Your task to perform on an android device: Do I have any events tomorrow? Image 0: 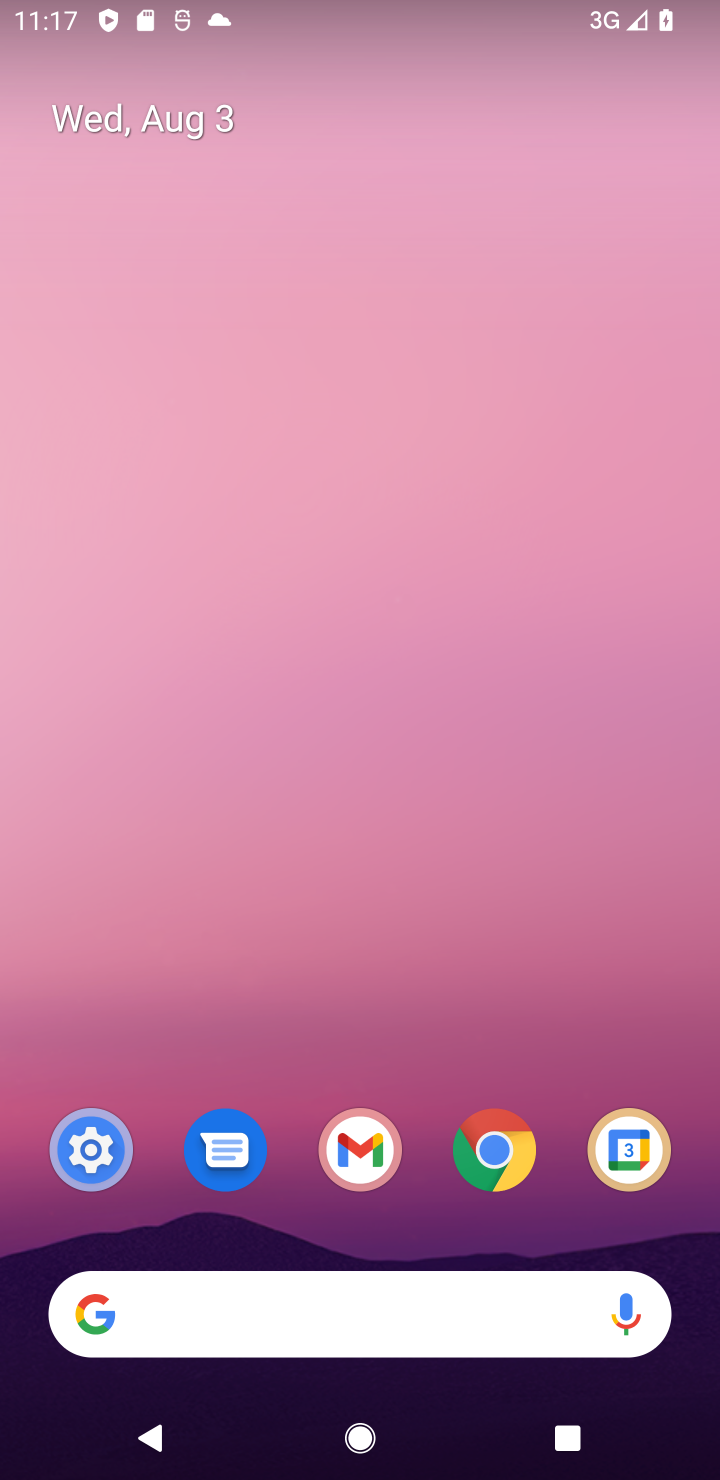
Step 0: press home button
Your task to perform on an android device: Do I have any events tomorrow? Image 1: 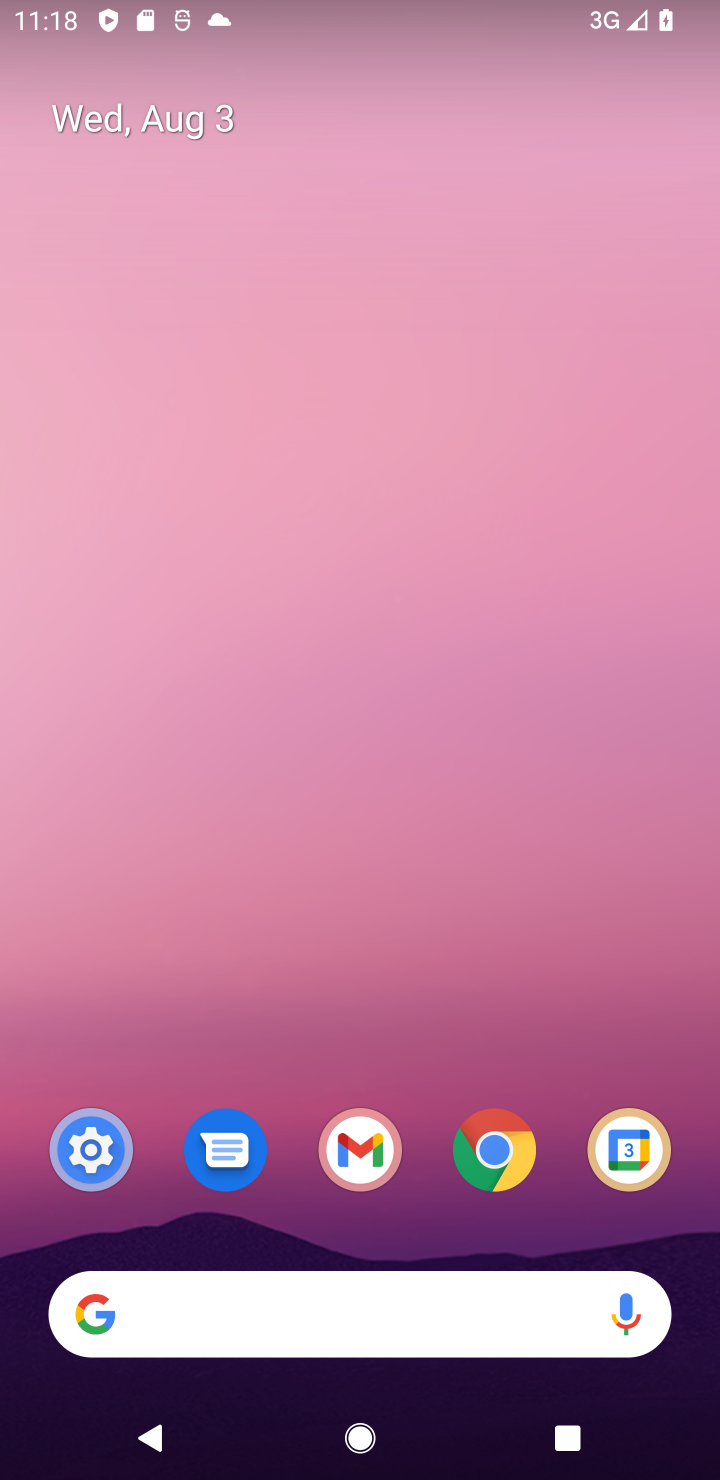
Step 1: drag from (543, 972) to (556, 243)
Your task to perform on an android device: Do I have any events tomorrow? Image 2: 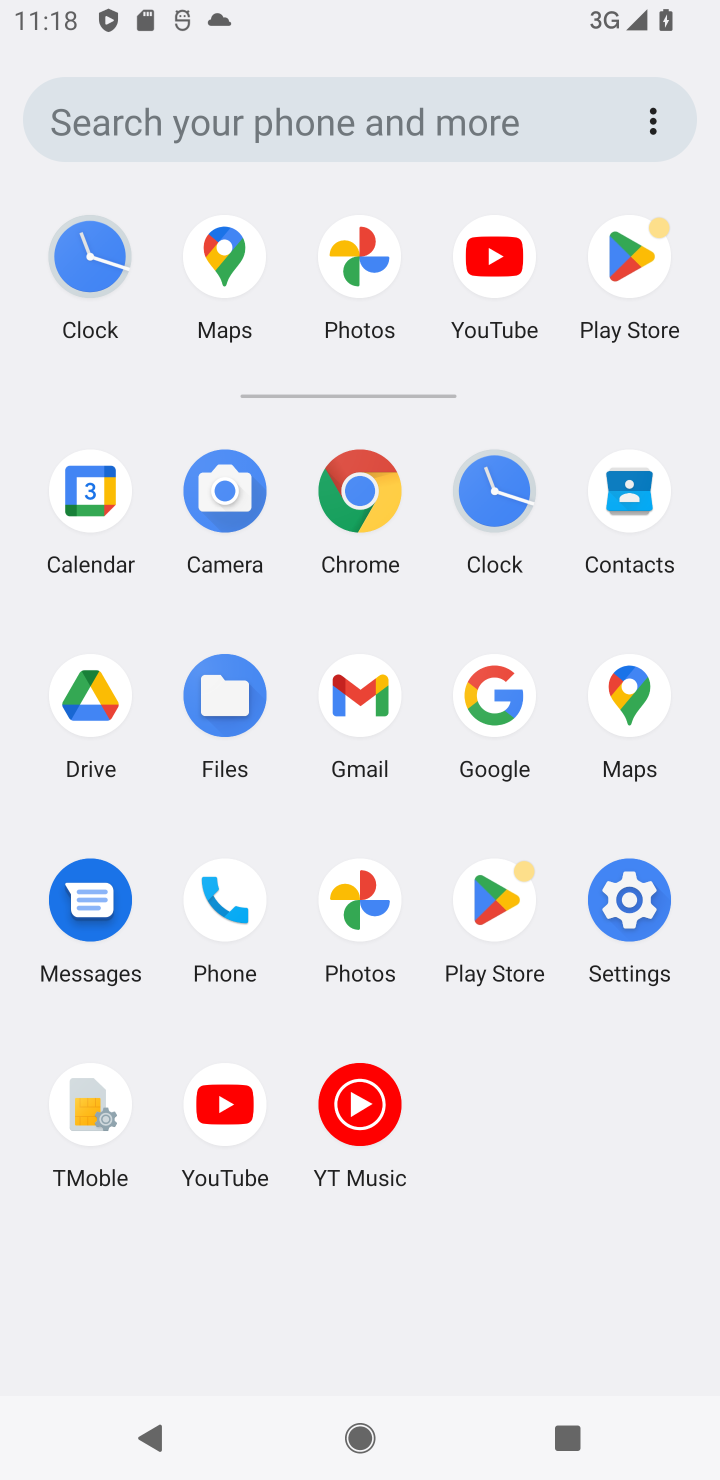
Step 2: click (105, 520)
Your task to perform on an android device: Do I have any events tomorrow? Image 3: 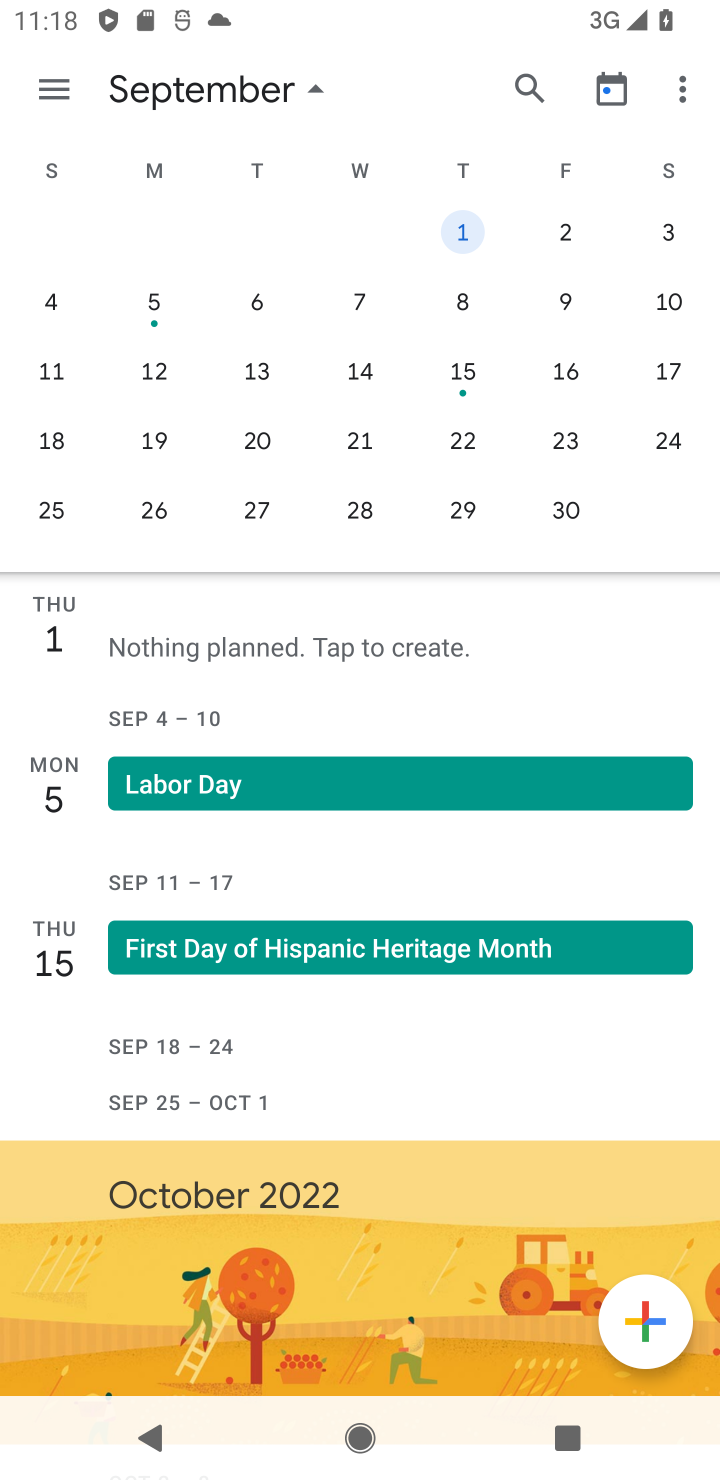
Step 3: click (354, 811)
Your task to perform on an android device: Do I have any events tomorrow? Image 4: 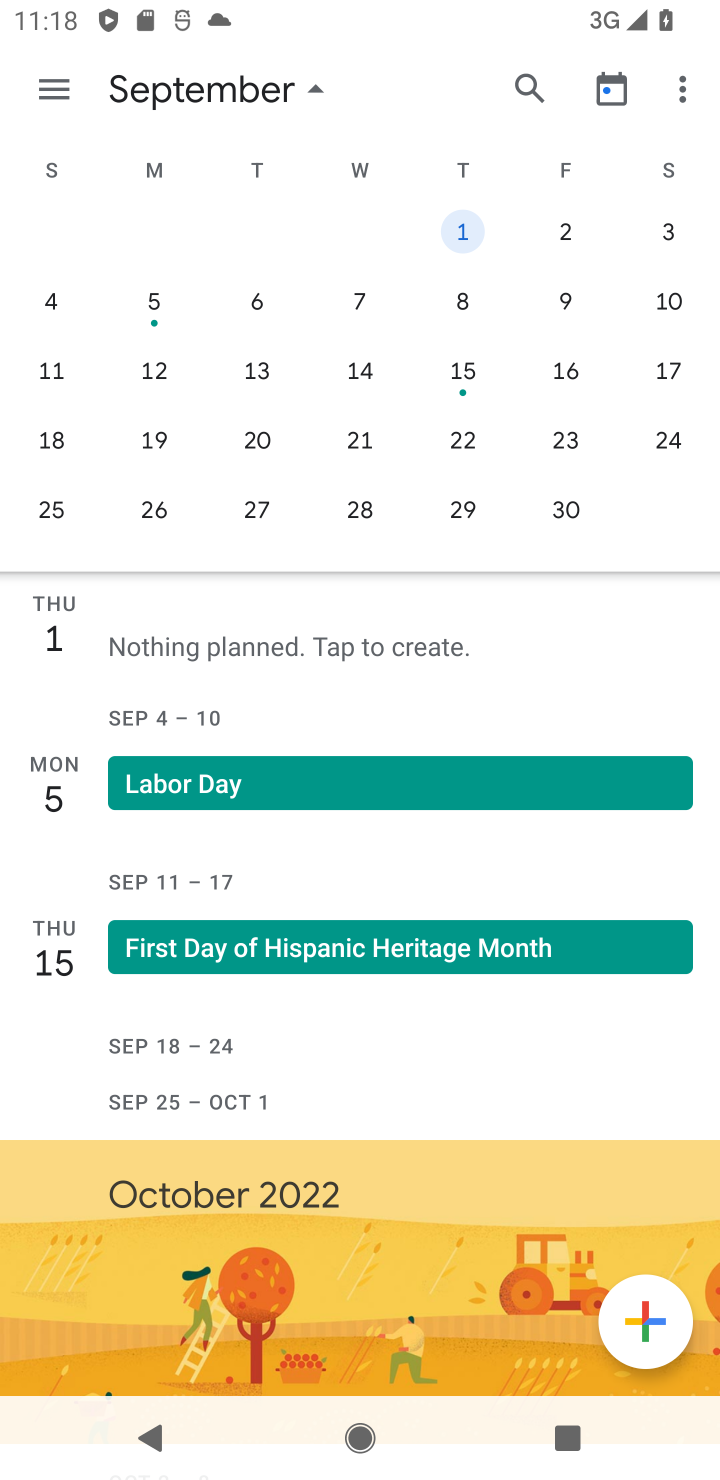
Step 4: drag from (354, 608) to (375, 96)
Your task to perform on an android device: Do I have any events tomorrow? Image 5: 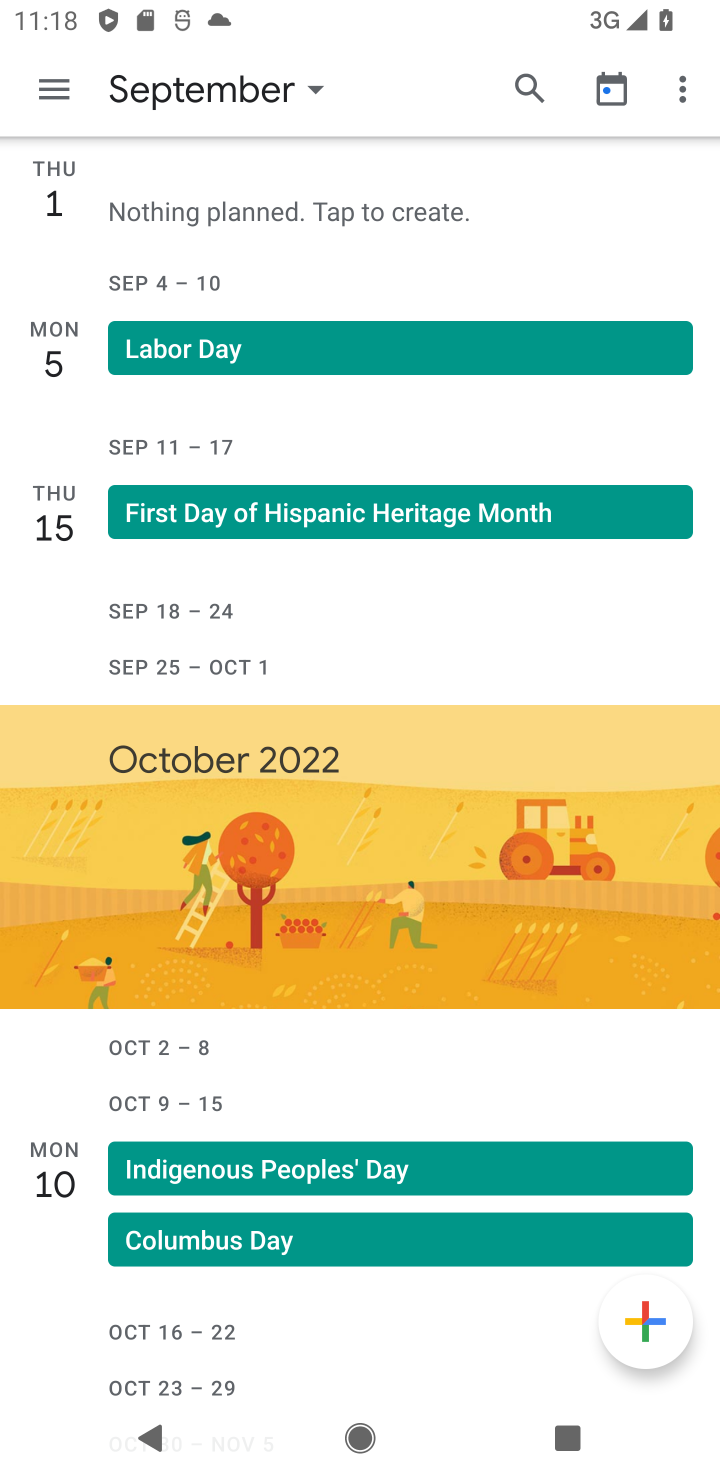
Step 5: drag from (371, 238) to (410, 660)
Your task to perform on an android device: Do I have any events tomorrow? Image 6: 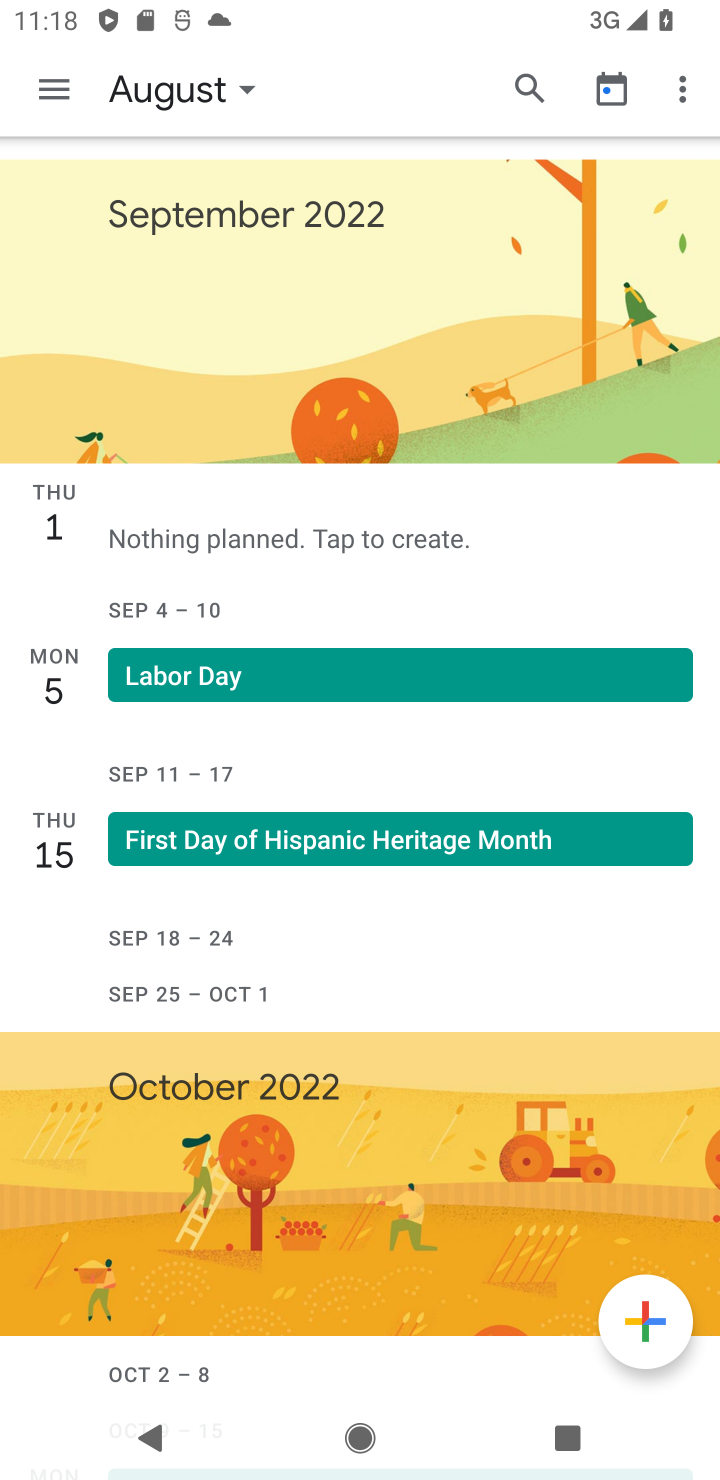
Step 6: drag from (403, 280) to (408, 644)
Your task to perform on an android device: Do I have any events tomorrow? Image 7: 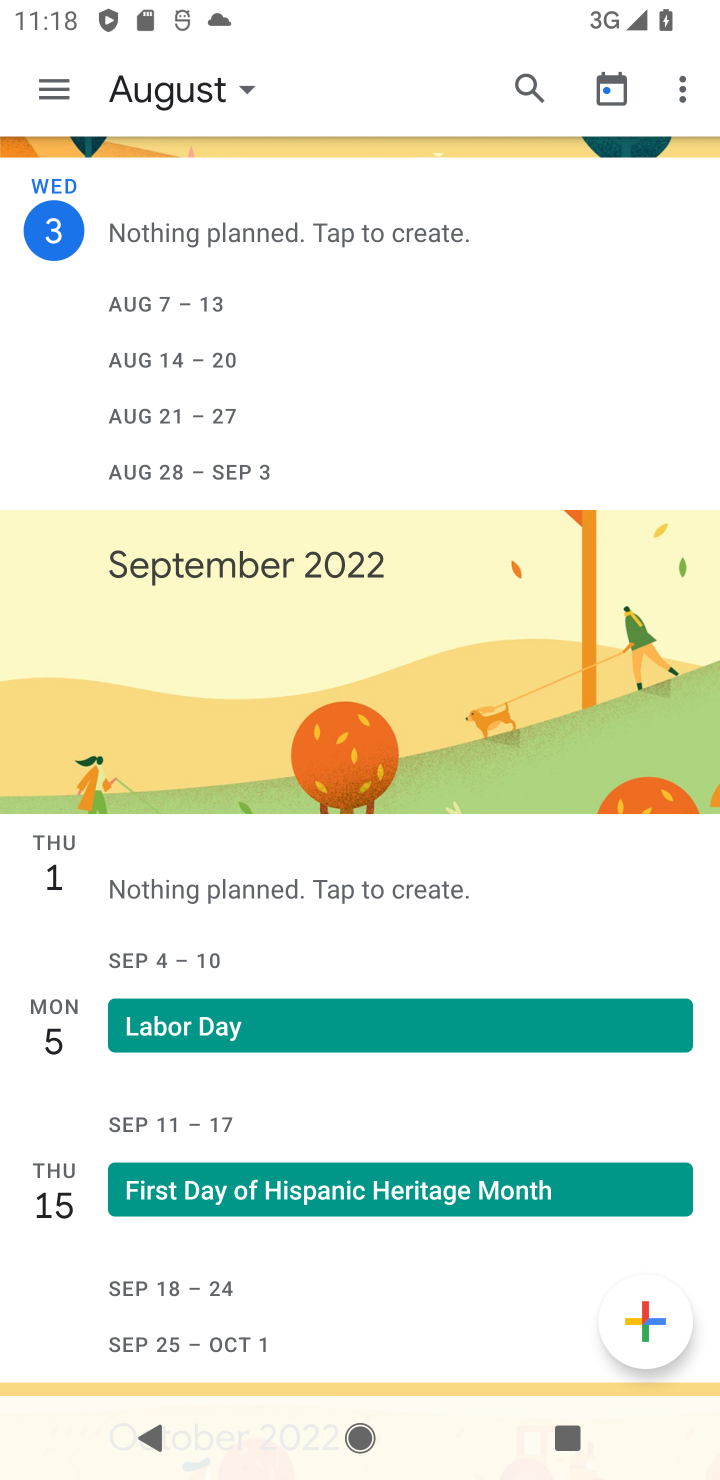
Step 7: drag from (408, 270) to (412, 599)
Your task to perform on an android device: Do I have any events tomorrow? Image 8: 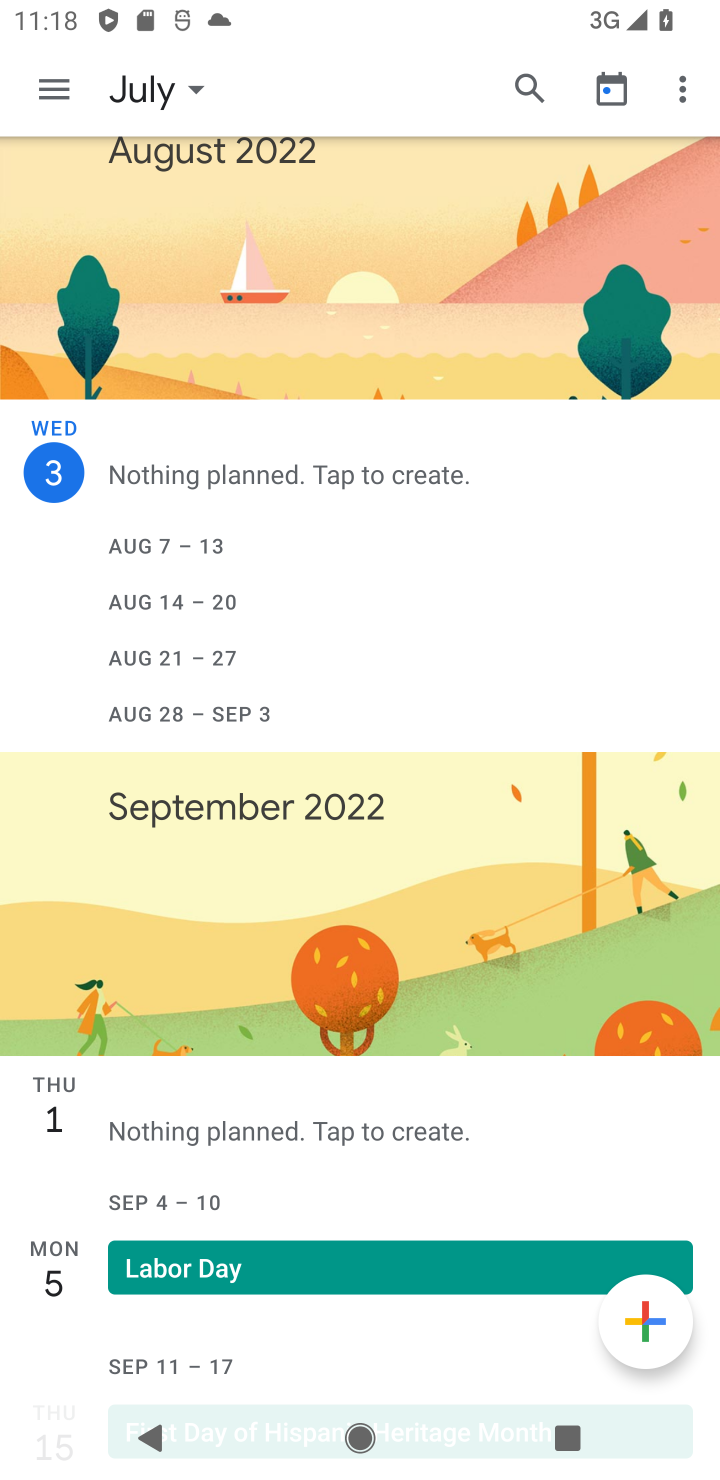
Step 8: drag from (410, 644) to (415, 278)
Your task to perform on an android device: Do I have any events tomorrow? Image 9: 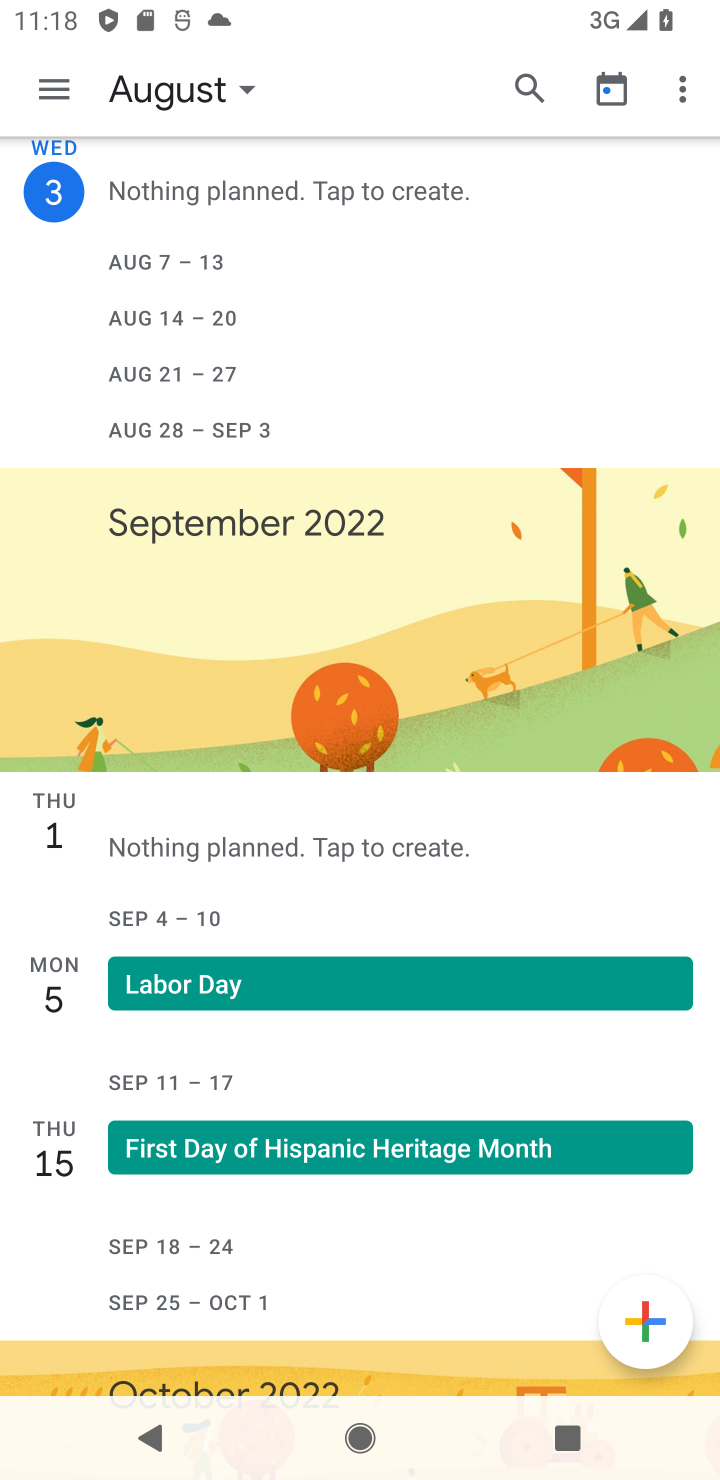
Step 9: click (249, 91)
Your task to perform on an android device: Do I have any events tomorrow? Image 10: 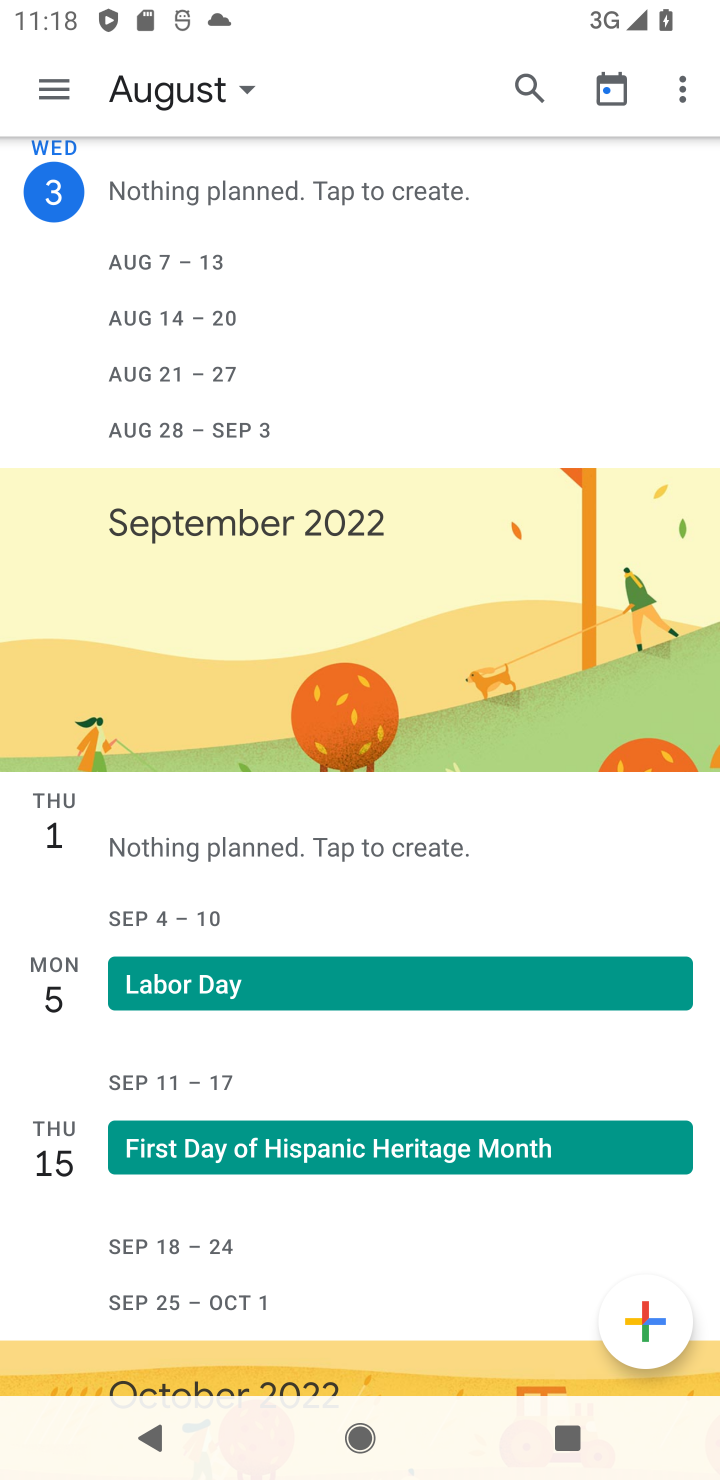
Step 10: click (240, 86)
Your task to perform on an android device: Do I have any events tomorrow? Image 11: 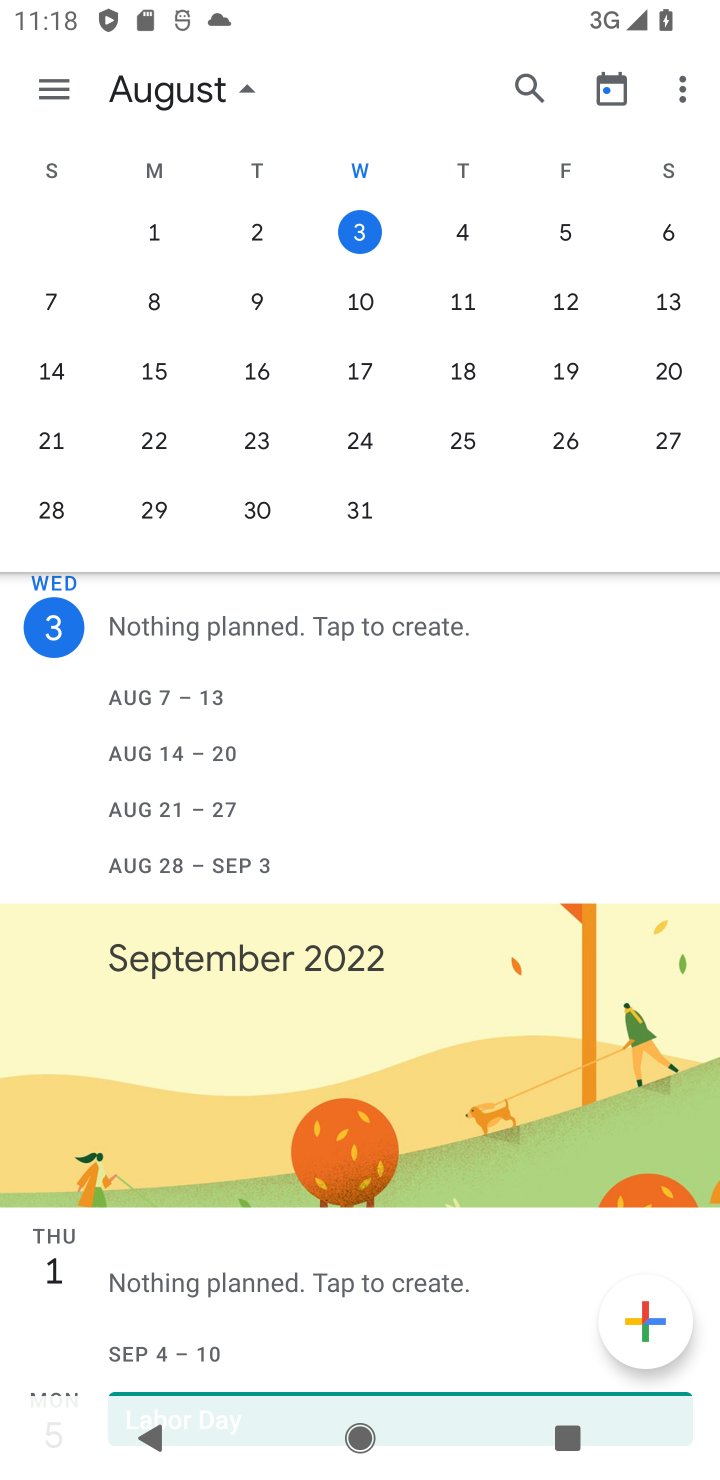
Step 11: click (463, 226)
Your task to perform on an android device: Do I have any events tomorrow? Image 12: 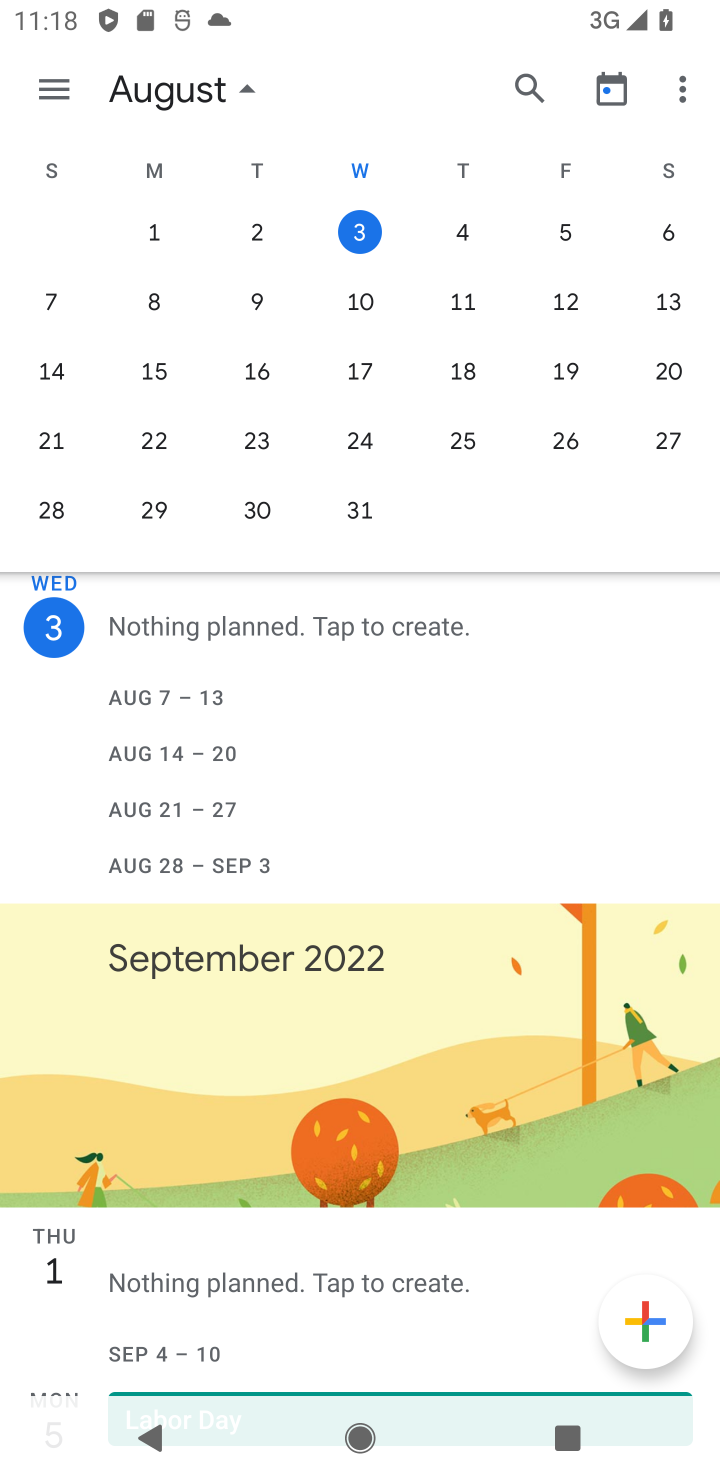
Step 12: click (472, 225)
Your task to perform on an android device: Do I have any events tomorrow? Image 13: 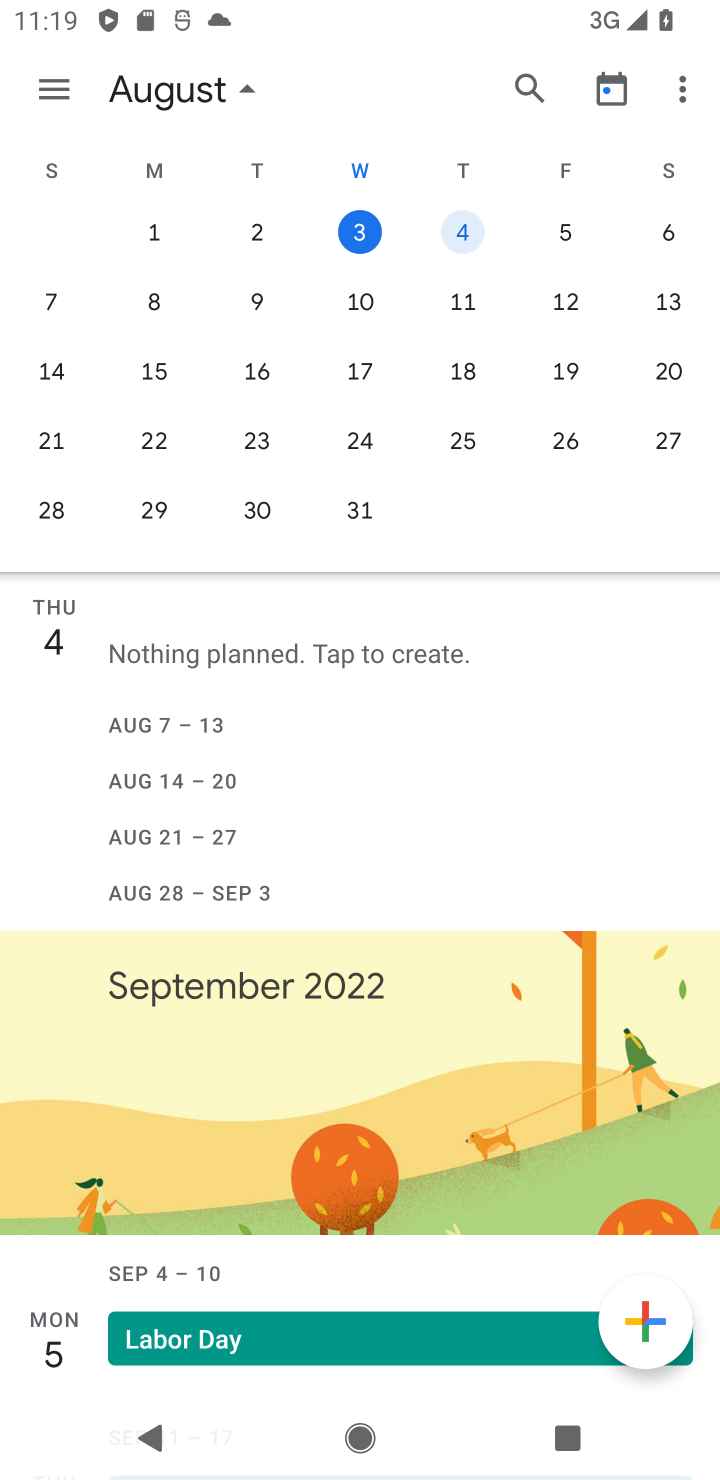
Step 13: task complete